Your task to perform on an android device: add a contact Image 0: 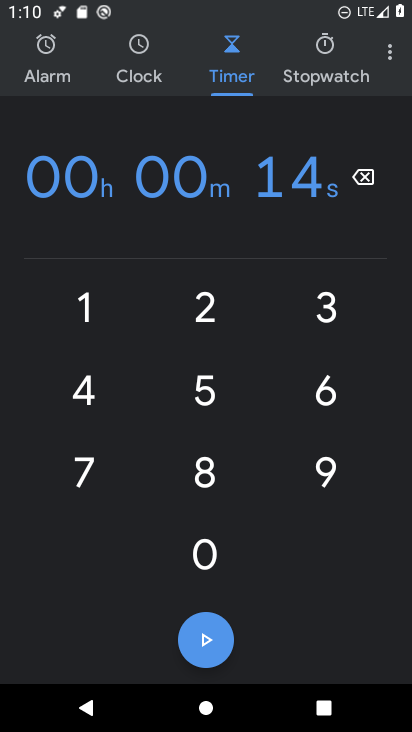
Step 0: press home button
Your task to perform on an android device: add a contact Image 1: 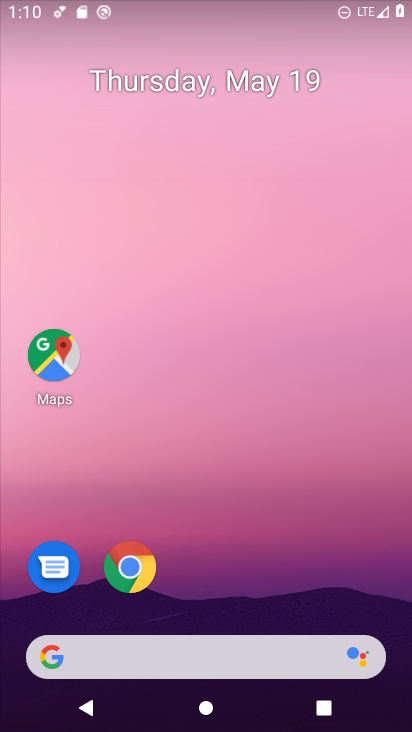
Step 1: drag from (234, 381) to (229, 94)
Your task to perform on an android device: add a contact Image 2: 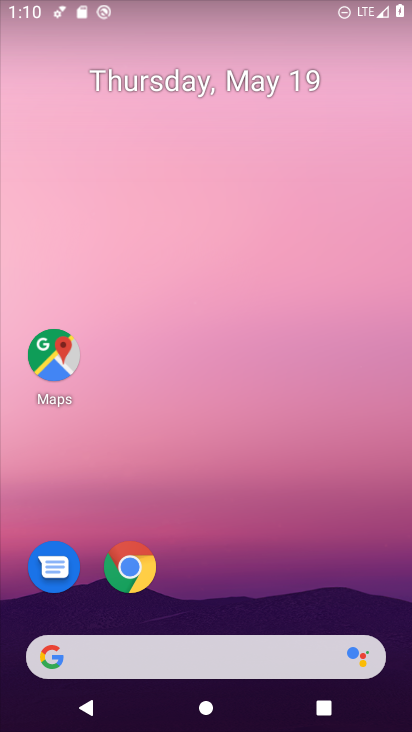
Step 2: drag from (266, 484) to (254, 19)
Your task to perform on an android device: add a contact Image 3: 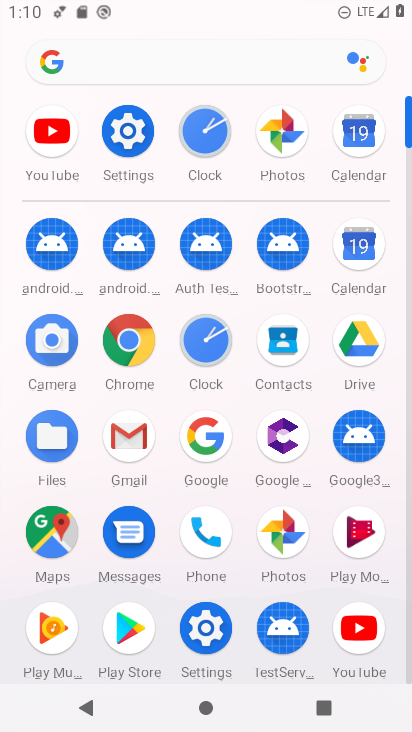
Step 3: click (282, 359)
Your task to perform on an android device: add a contact Image 4: 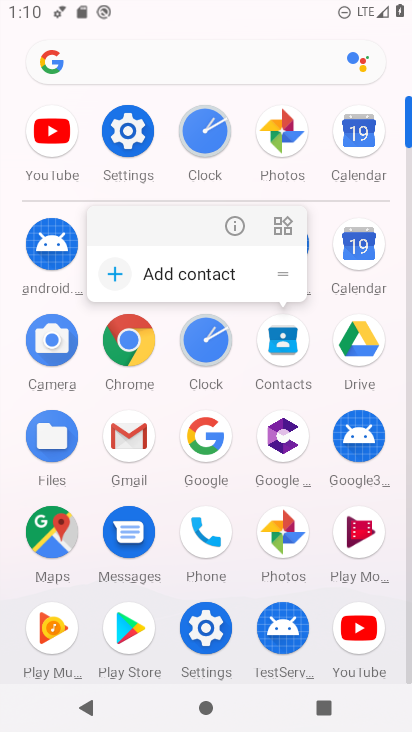
Step 4: click (282, 340)
Your task to perform on an android device: add a contact Image 5: 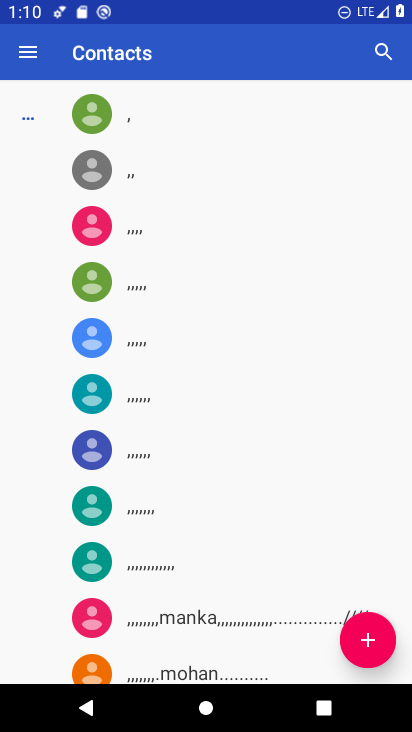
Step 5: click (381, 645)
Your task to perform on an android device: add a contact Image 6: 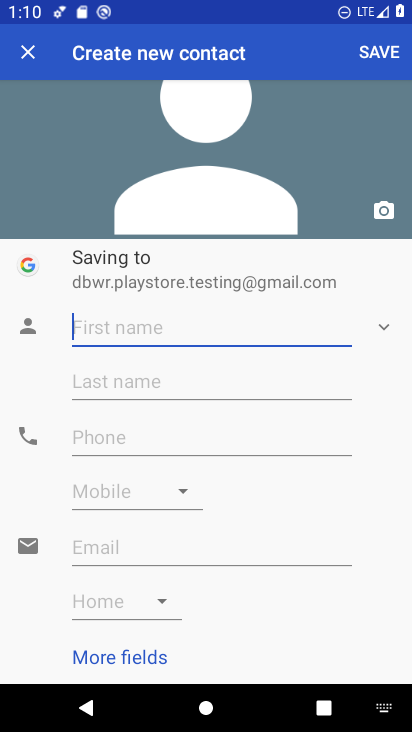
Step 6: type "Sitaramji"
Your task to perform on an android device: add a contact Image 7: 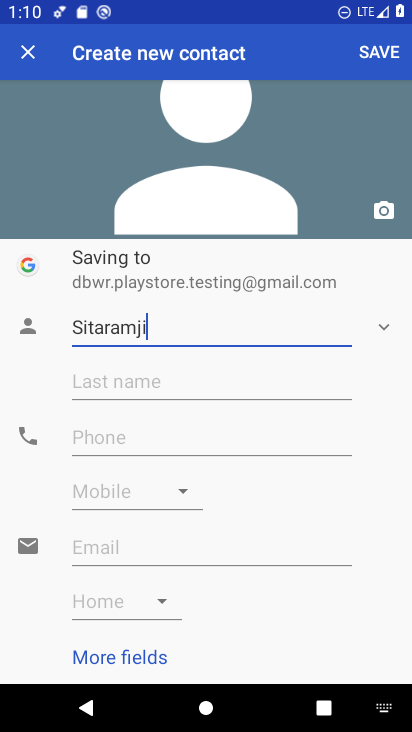
Step 7: click (225, 432)
Your task to perform on an android device: add a contact Image 8: 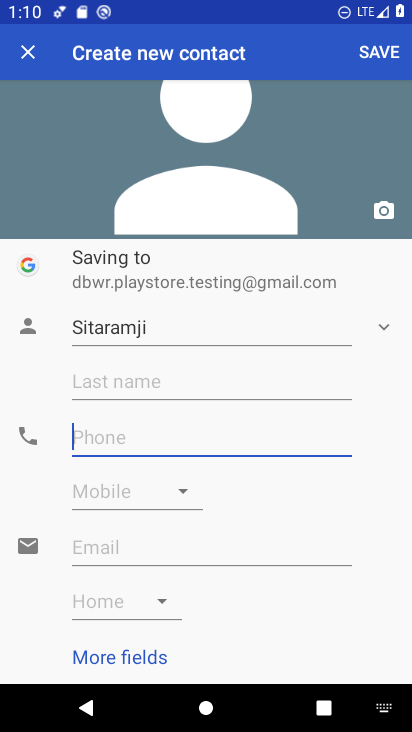
Step 8: type "01122334455"
Your task to perform on an android device: add a contact Image 9: 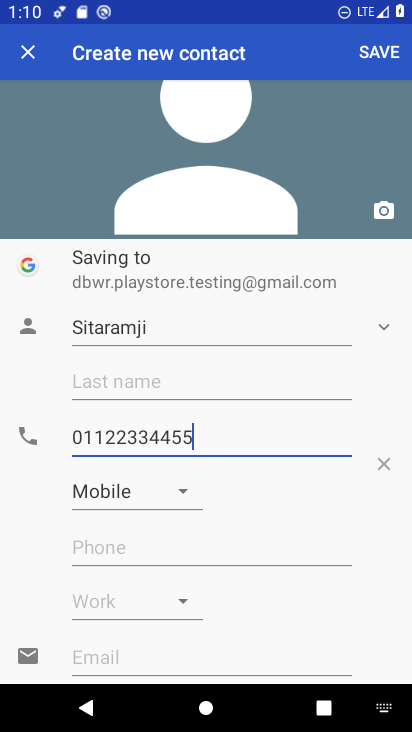
Step 9: click (388, 51)
Your task to perform on an android device: add a contact Image 10: 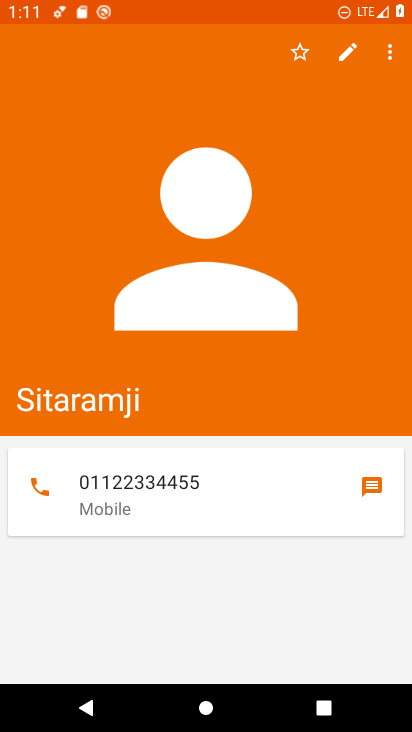
Step 10: task complete